Your task to perform on an android device: Open battery settings Image 0: 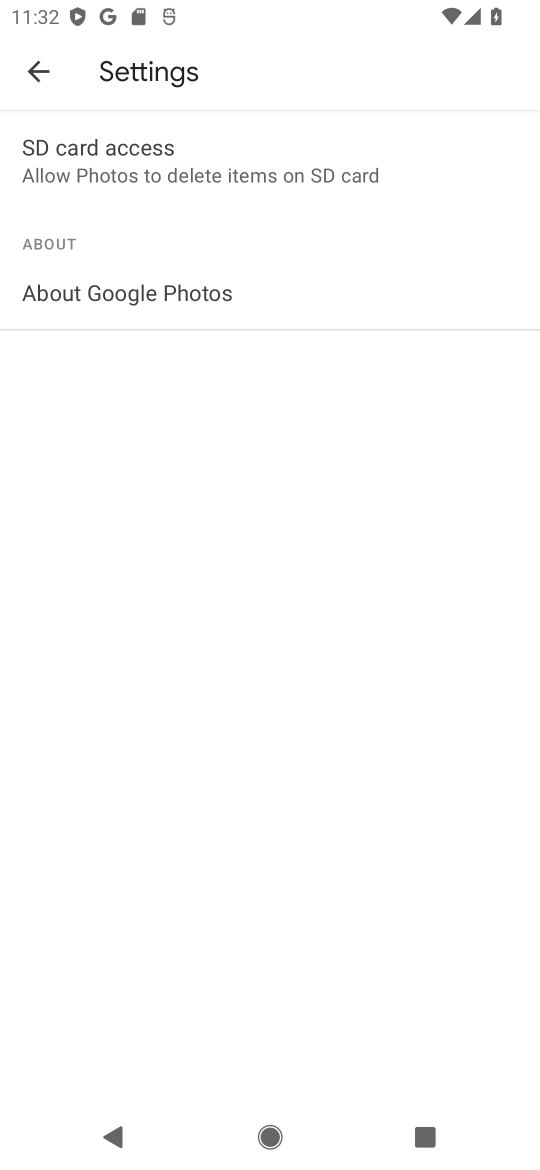
Step 0: press home button
Your task to perform on an android device: Open battery settings Image 1: 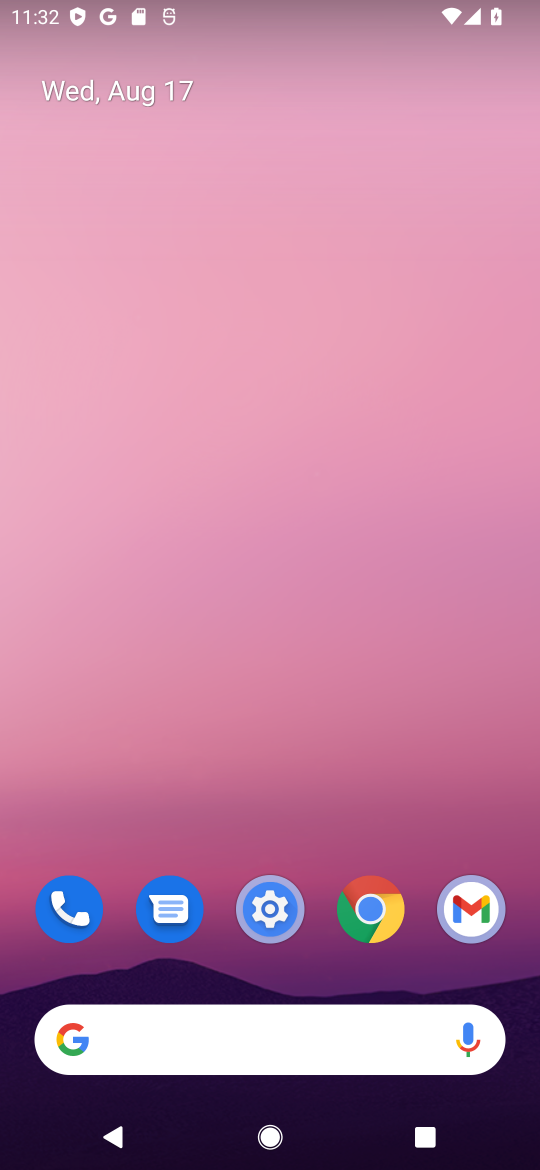
Step 1: click (268, 909)
Your task to perform on an android device: Open battery settings Image 2: 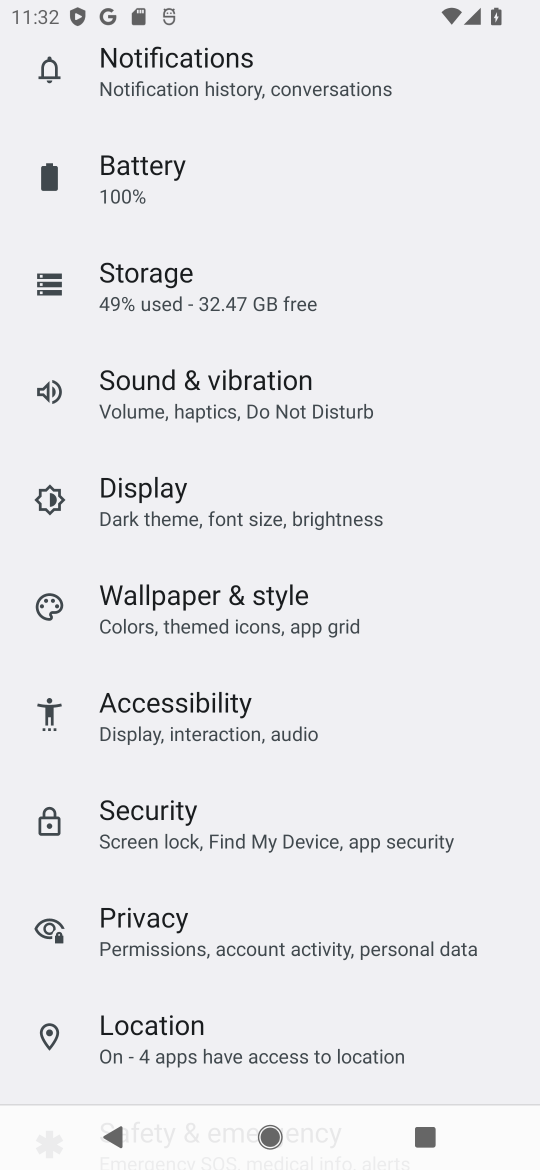
Step 2: click (136, 170)
Your task to perform on an android device: Open battery settings Image 3: 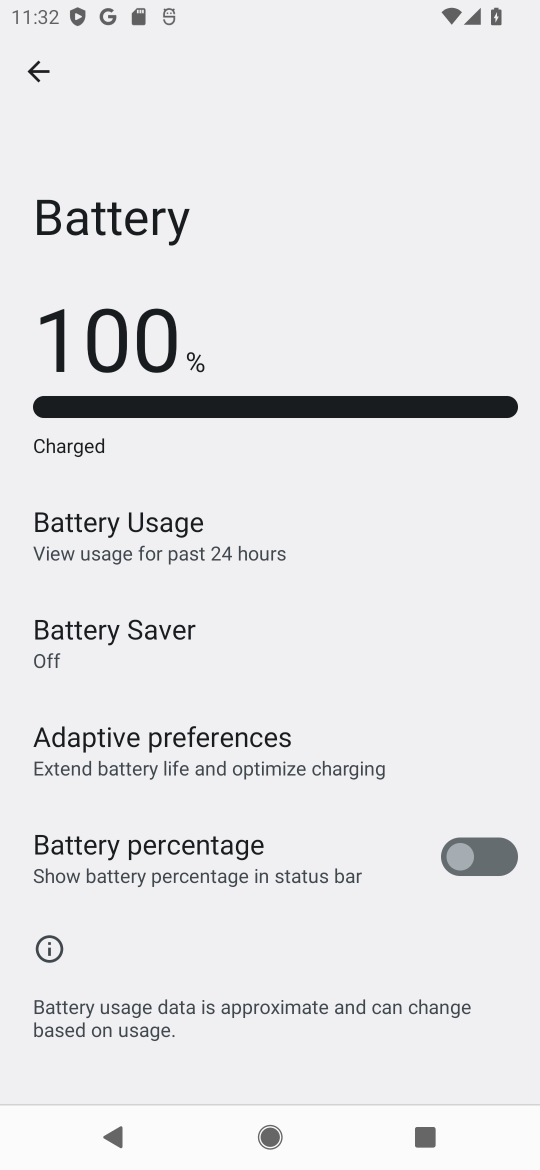
Step 3: task complete